Your task to perform on an android device: Open ESPN.com Image 0: 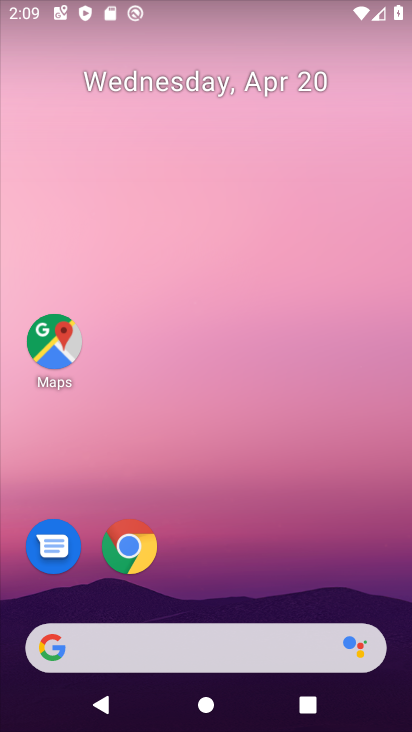
Step 0: drag from (277, 672) to (199, 142)
Your task to perform on an android device: Open ESPN.com Image 1: 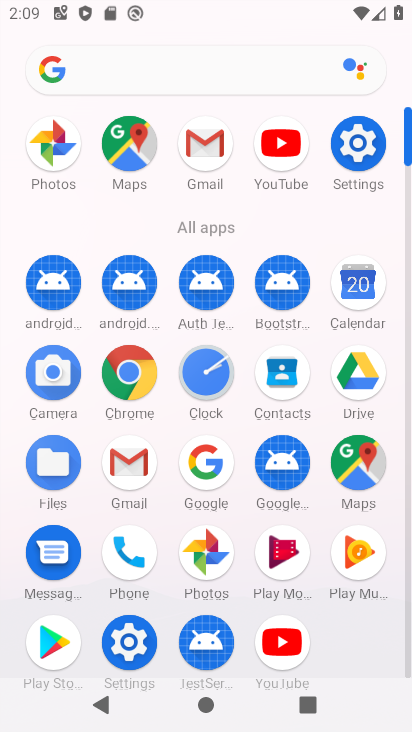
Step 1: click (148, 371)
Your task to perform on an android device: Open ESPN.com Image 2: 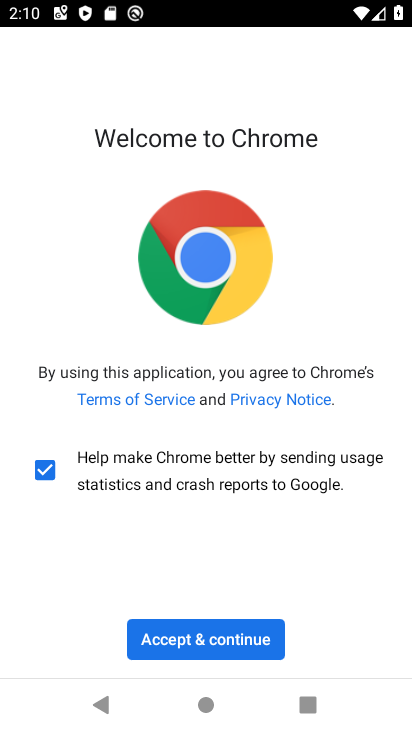
Step 2: click (213, 636)
Your task to perform on an android device: Open ESPN.com Image 3: 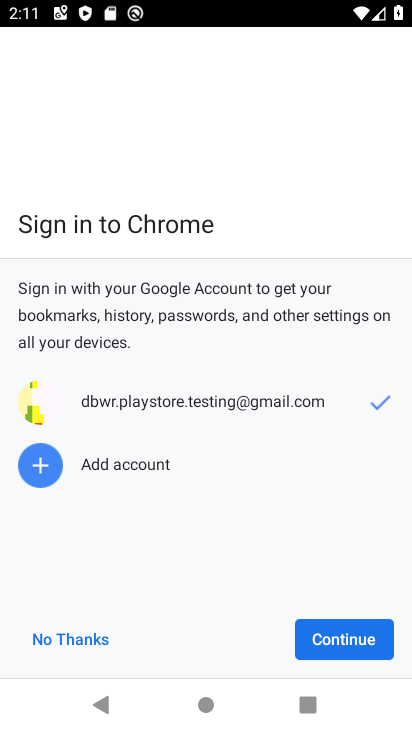
Step 3: click (357, 636)
Your task to perform on an android device: Open ESPN.com Image 4: 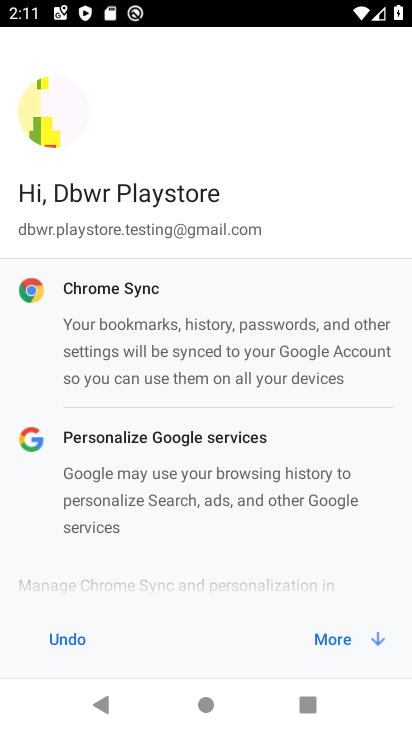
Step 4: click (387, 626)
Your task to perform on an android device: Open ESPN.com Image 5: 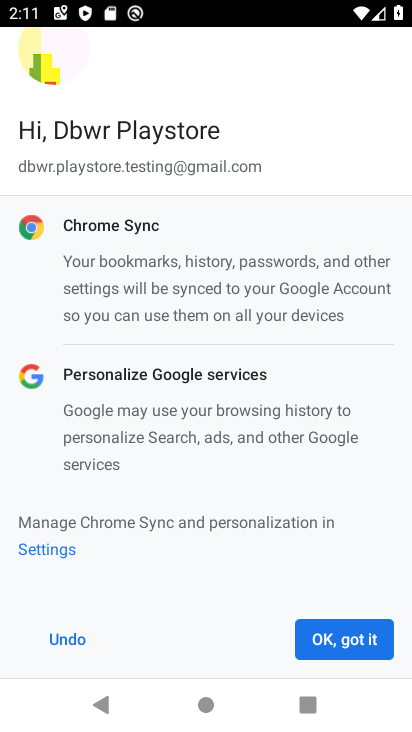
Step 5: click (358, 642)
Your task to perform on an android device: Open ESPN.com Image 6: 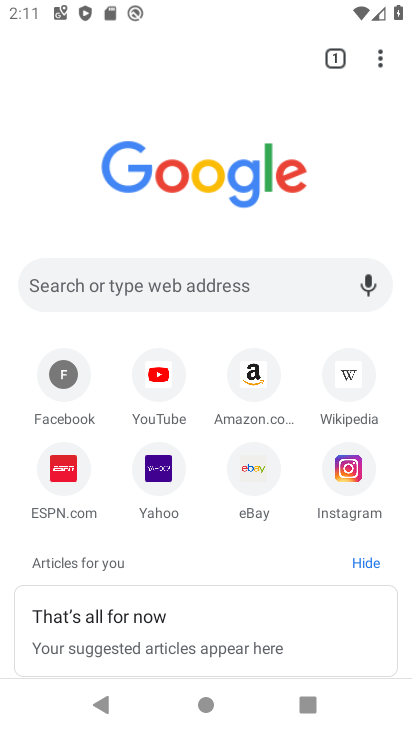
Step 6: click (149, 286)
Your task to perform on an android device: Open ESPN.com Image 7: 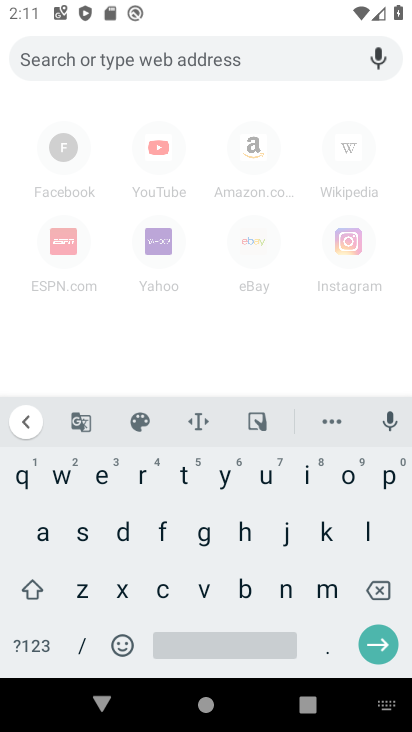
Step 7: click (98, 478)
Your task to perform on an android device: Open ESPN.com Image 8: 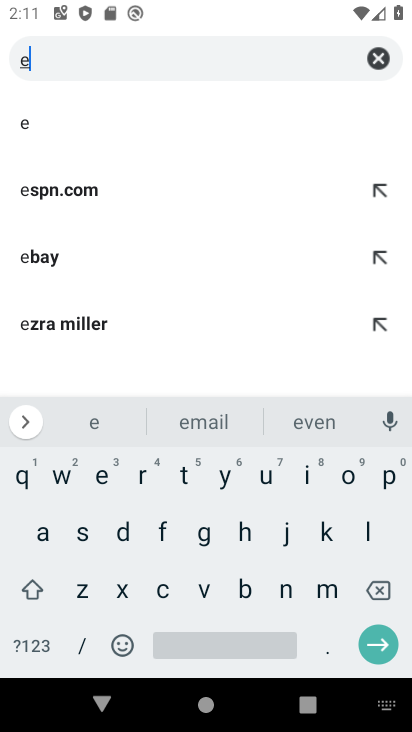
Step 8: click (109, 199)
Your task to perform on an android device: Open ESPN.com Image 9: 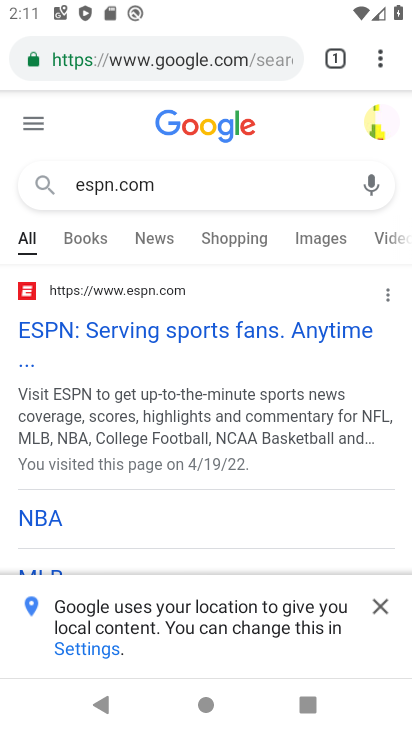
Step 9: click (168, 325)
Your task to perform on an android device: Open ESPN.com Image 10: 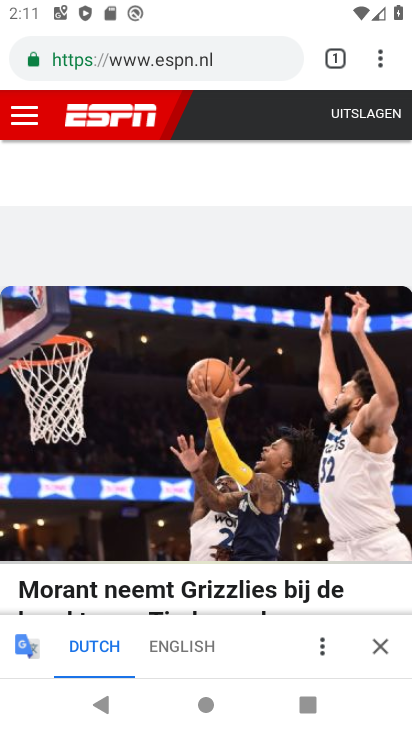
Step 10: task complete